Your task to perform on an android device: What is the recent news? Image 0: 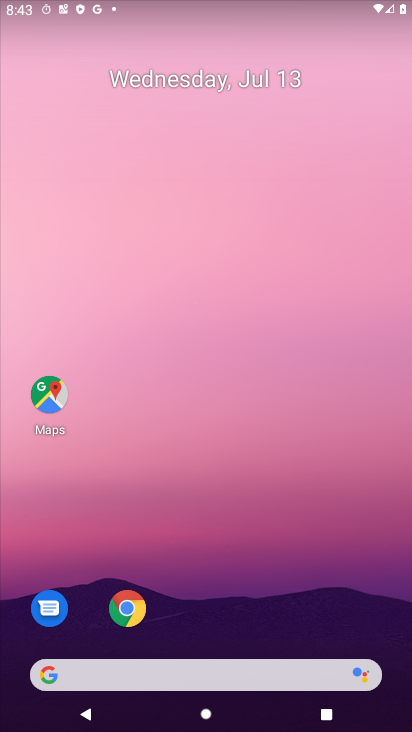
Step 0: drag from (241, 423) to (189, 41)
Your task to perform on an android device: What is the recent news? Image 1: 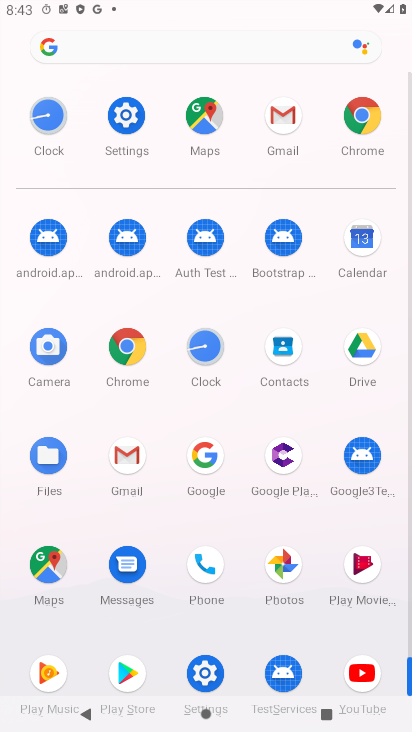
Step 1: click (120, 117)
Your task to perform on an android device: What is the recent news? Image 2: 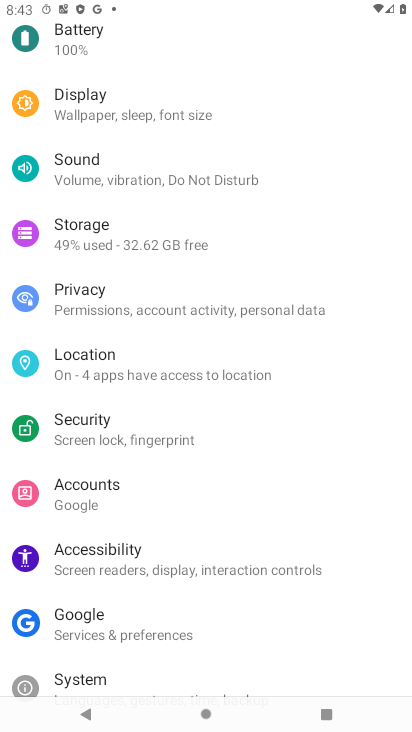
Step 2: press back button
Your task to perform on an android device: What is the recent news? Image 3: 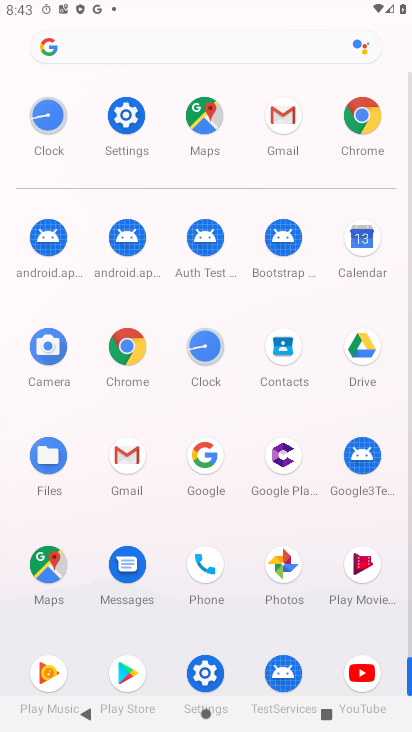
Step 3: click (368, 103)
Your task to perform on an android device: What is the recent news? Image 4: 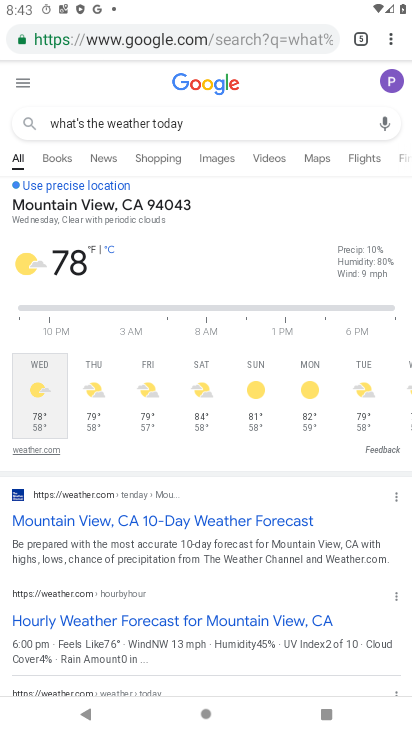
Step 4: task complete